Your task to perform on an android device: What's the weather? Image 0: 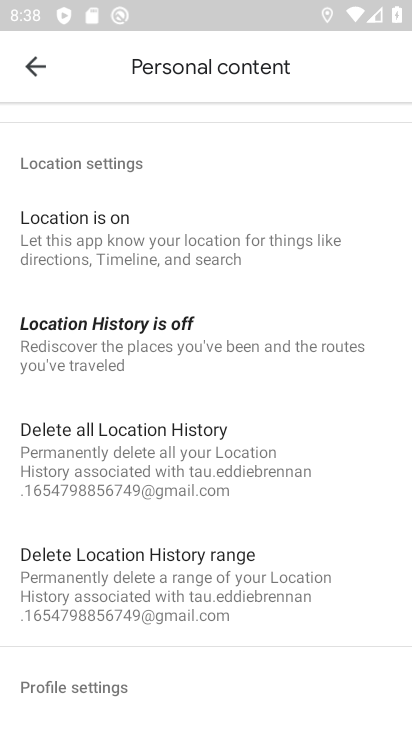
Step 0: press home button
Your task to perform on an android device: What's the weather? Image 1: 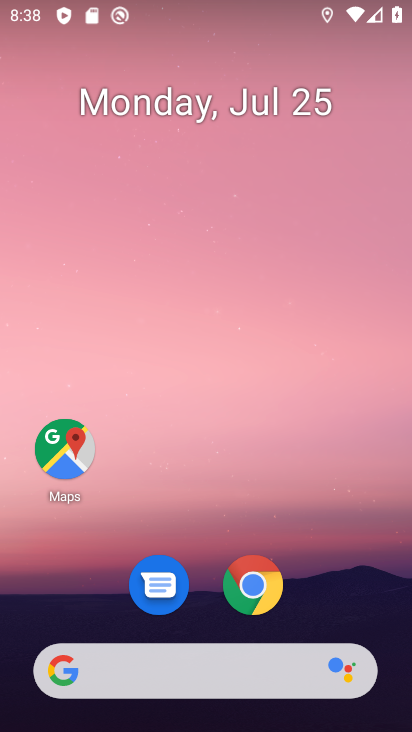
Step 1: click (148, 663)
Your task to perform on an android device: What's the weather? Image 2: 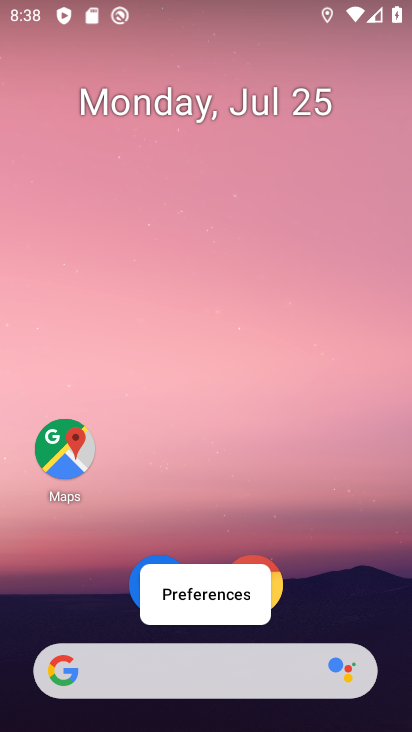
Step 2: click (157, 674)
Your task to perform on an android device: What's the weather? Image 3: 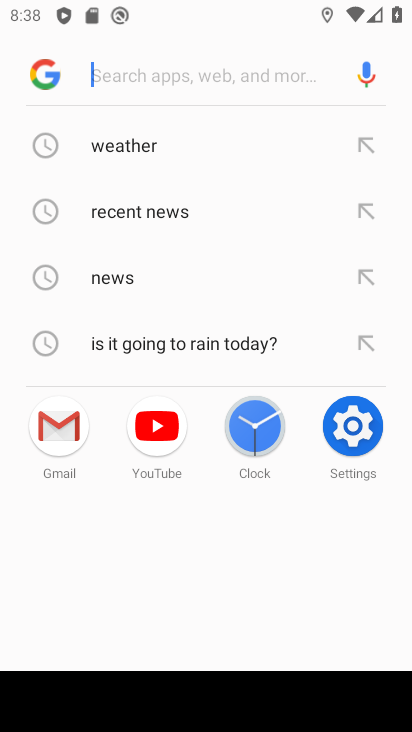
Step 3: click (127, 144)
Your task to perform on an android device: What's the weather? Image 4: 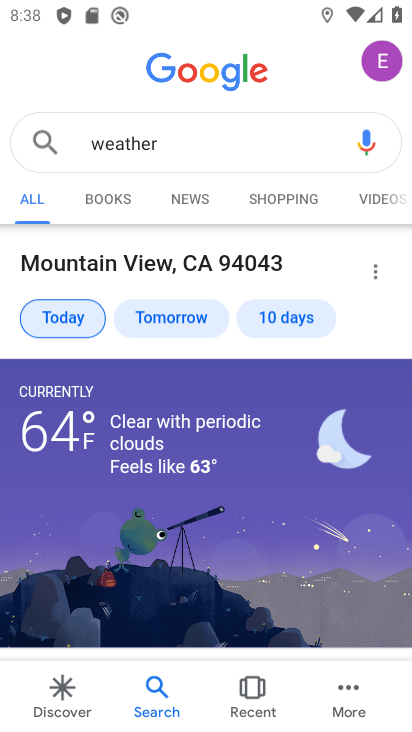
Step 4: task complete